Your task to perform on an android device: turn off sleep mode Image 0: 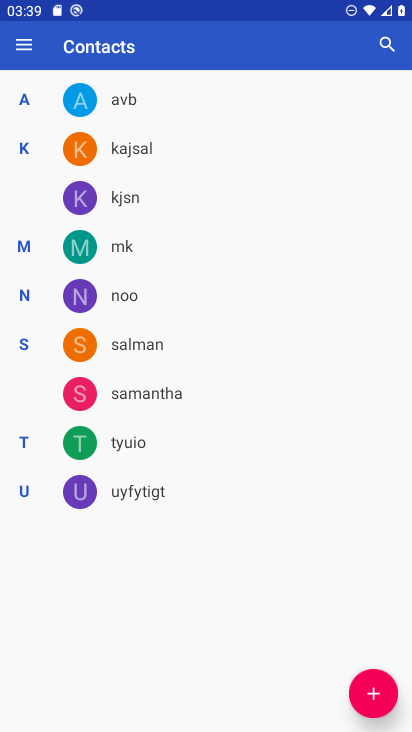
Step 0: press home button
Your task to perform on an android device: turn off sleep mode Image 1: 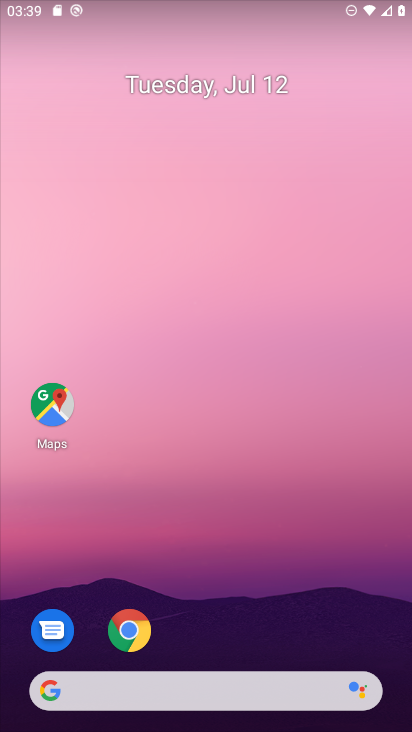
Step 1: drag from (271, 643) to (264, 543)
Your task to perform on an android device: turn off sleep mode Image 2: 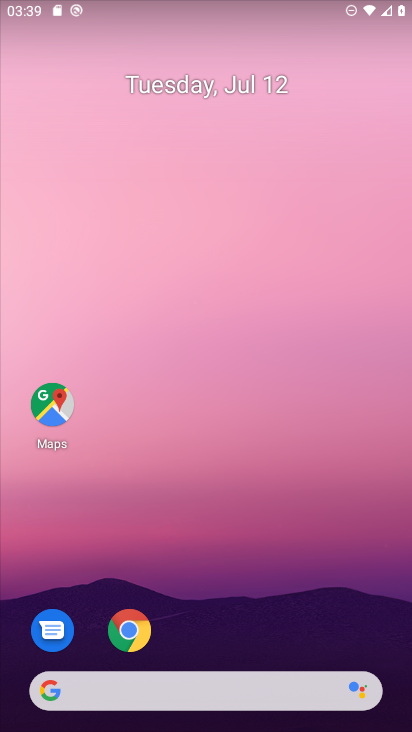
Step 2: drag from (283, 587) to (284, 230)
Your task to perform on an android device: turn off sleep mode Image 3: 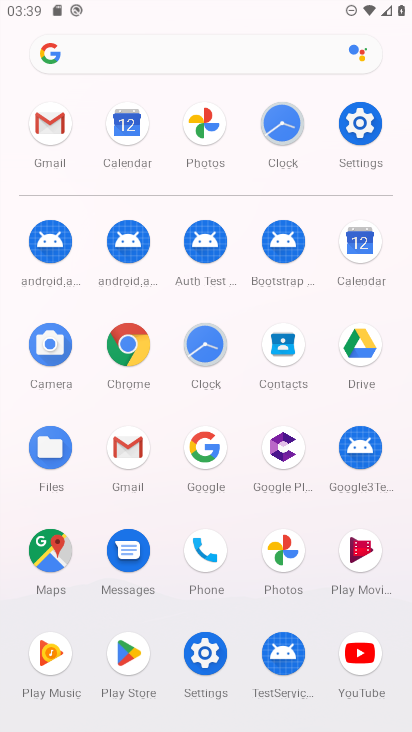
Step 3: click (199, 654)
Your task to perform on an android device: turn off sleep mode Image 4: 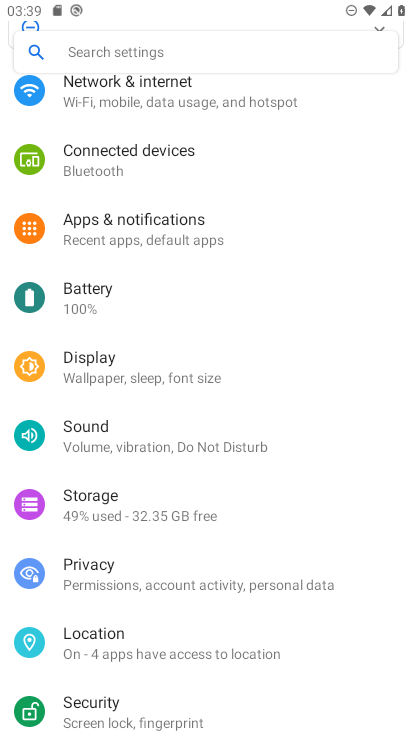
Step 4: click (101, 363)
Your task to perform on an android device: turn off sleep mode Image 5: 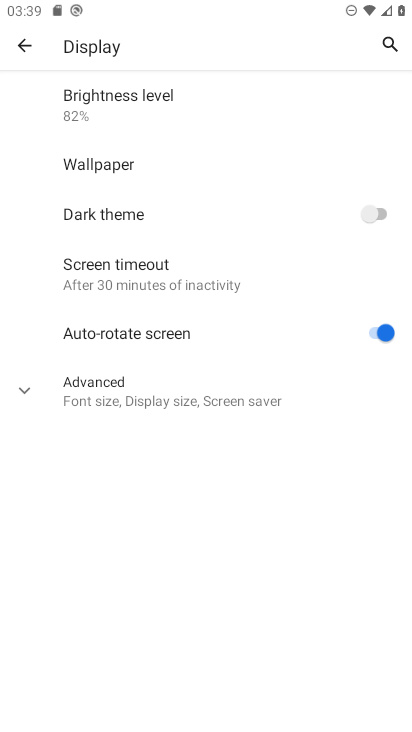
Step 5: click (59, 388)
Your task to perform on an android device: turn off sleep mode Image 6: 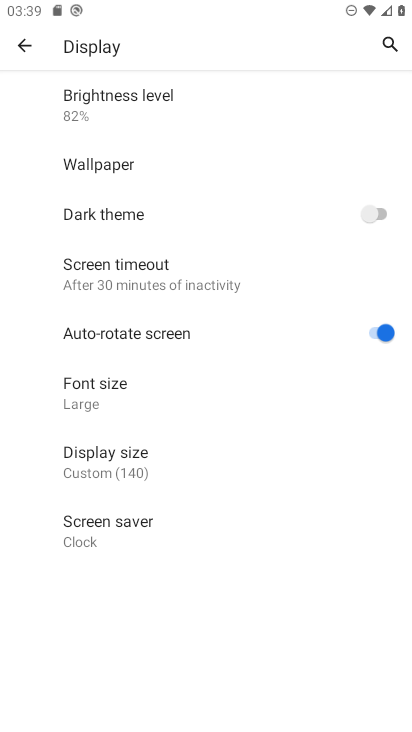
Step 6: task complete